Your task to perform on an android device: Clear the cart on target.com. Add "lg ultragear" to the cart on target.com Image 0: 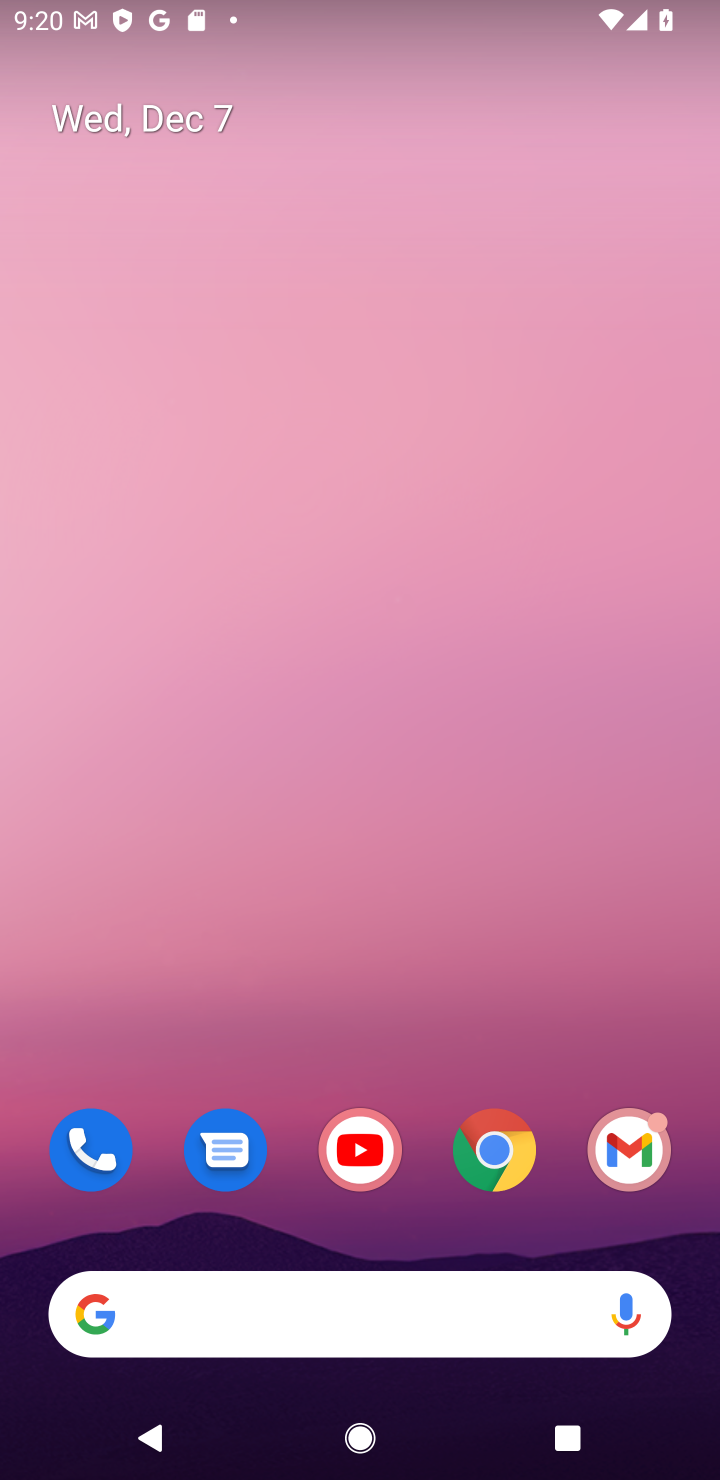
Step 0: click (508, 1148)
Your task to perform on an android device: Clear the cart on target.com. Add "lg ultragear" to the cart on target.com Image 1: 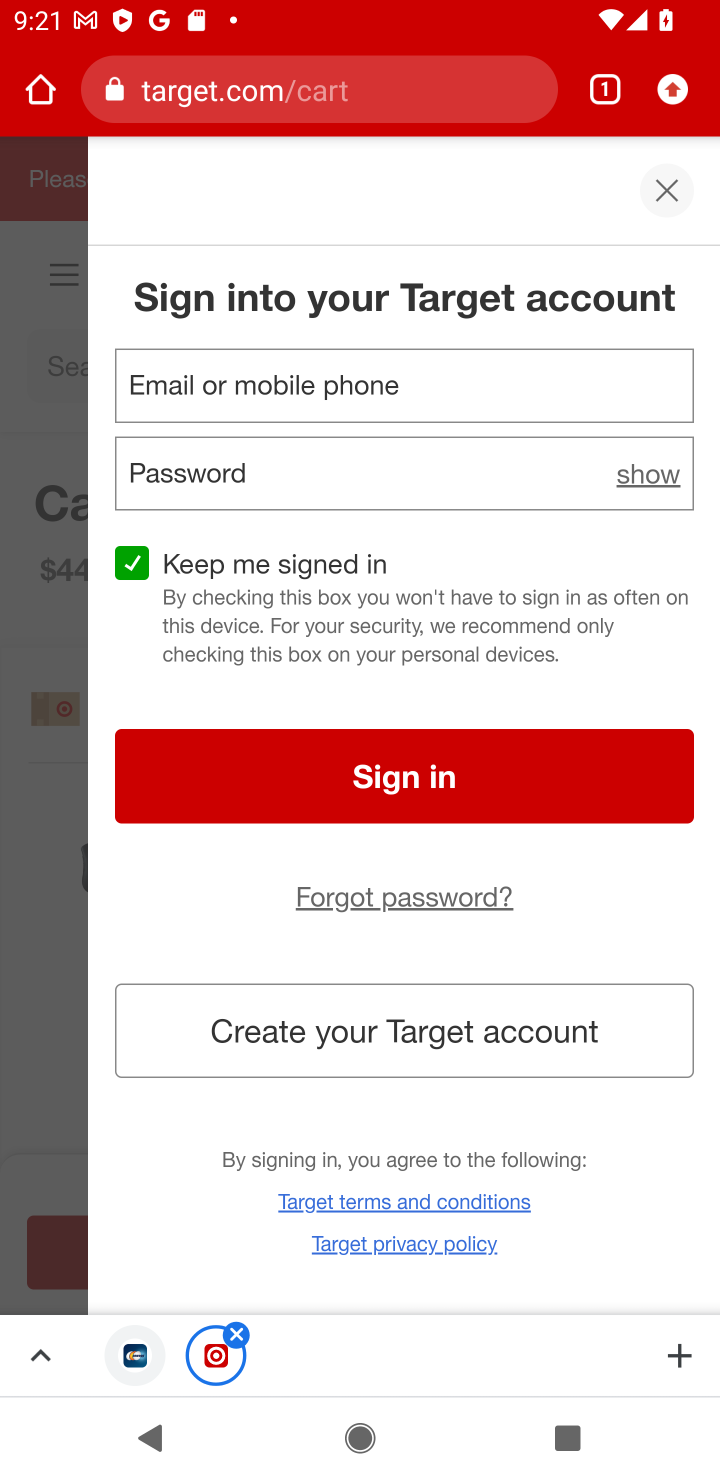
Step 1: click (672, 185)
Your task to perform on an android device: Clear the cart on target.com. Add "lg ultragear" to the cart on target.com Image 2: 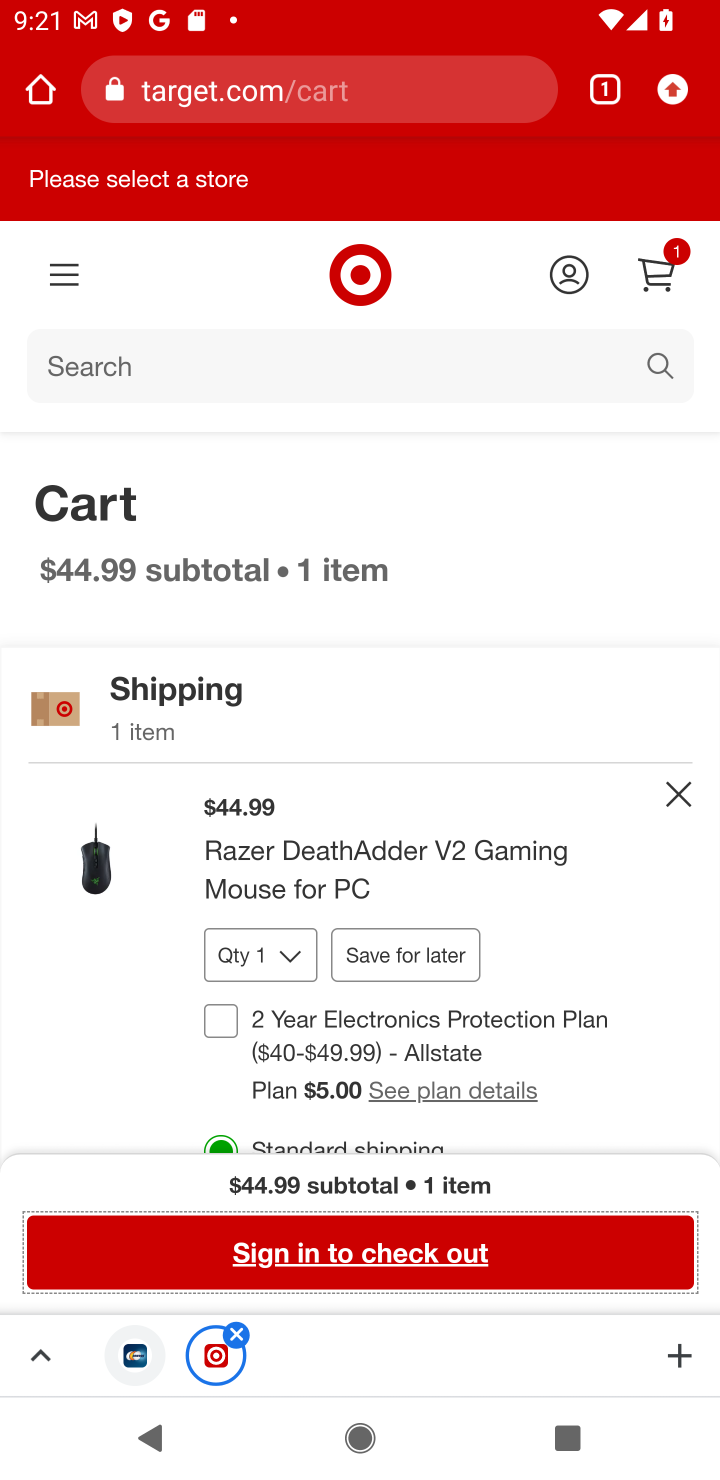
Step 2: click (680, 791)
Your task to perform on an android device: Clear the cart on target.com. Add "lg ultragear" to the cart on target.com Image 3: 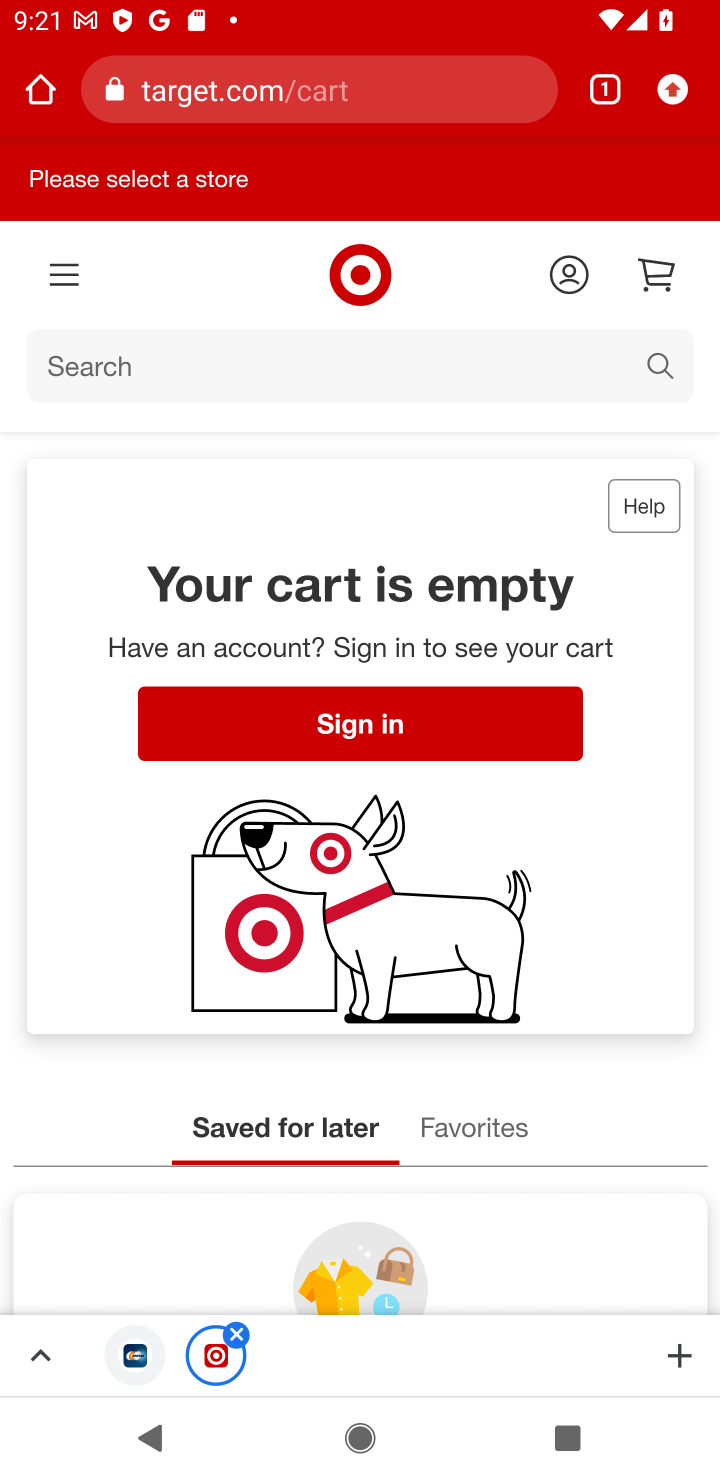
Step 3: click (648, 366)
Your task to perform on an android device: Clear the cart on target.com. Add "lg ultragear" to the cart on target.com Image 4: 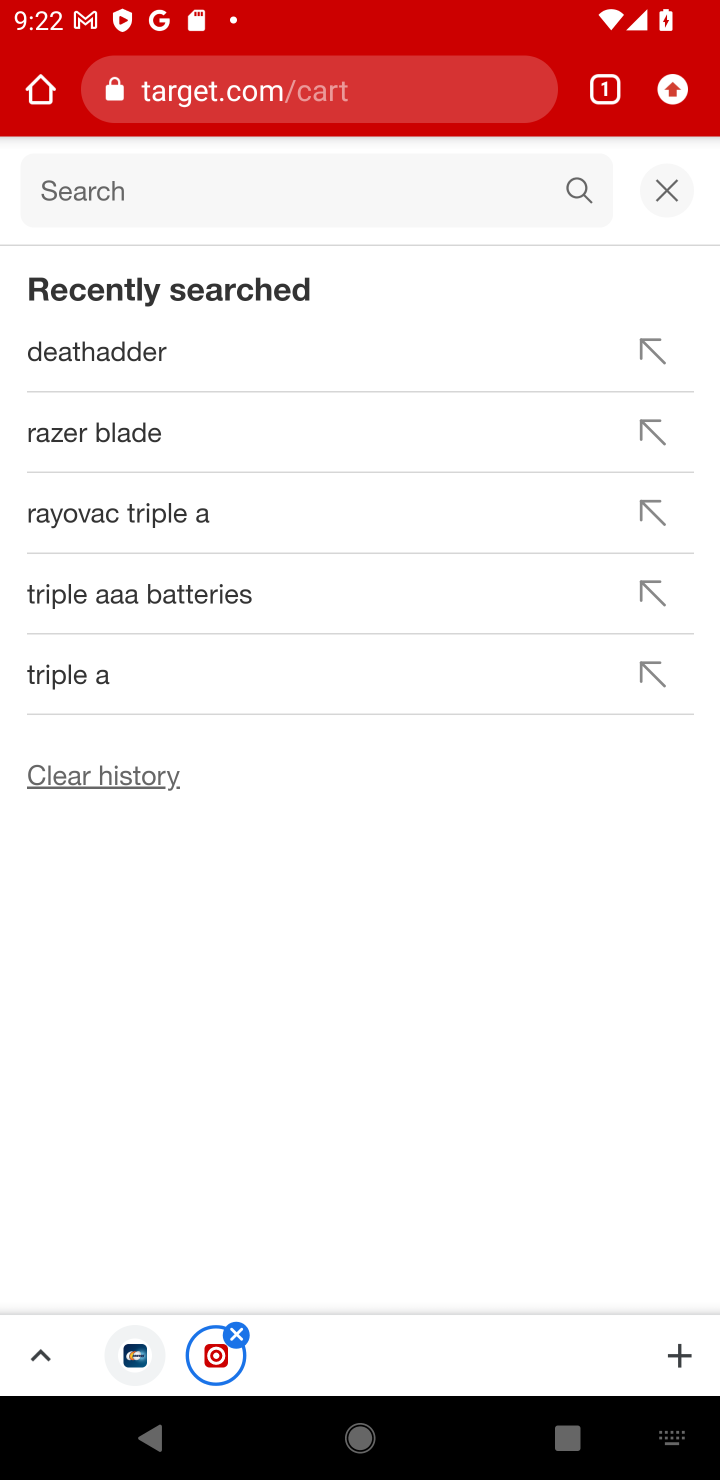
Step 4: press enter
Your task to perform on an android device: Clear the cart on target.com. Add "lg ultragear" to the cart on target.com Image 5: 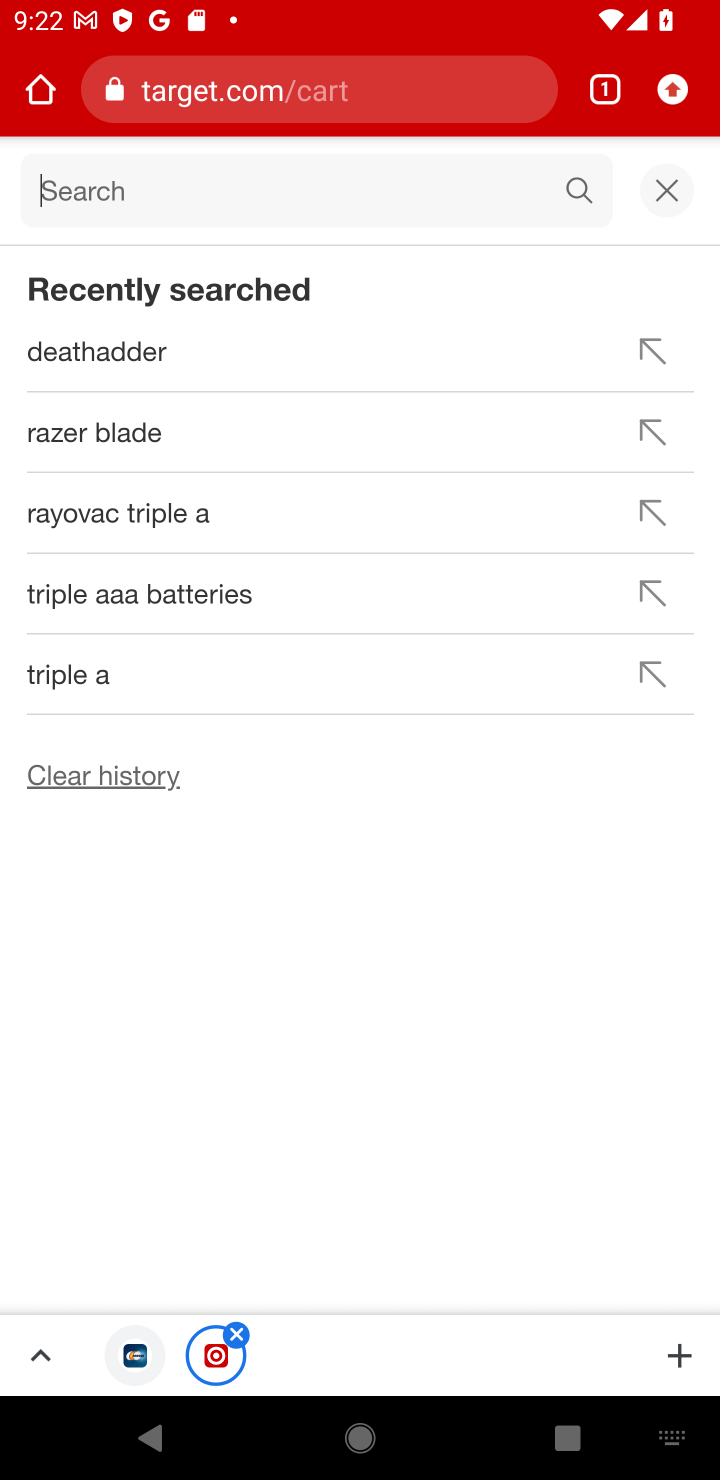
Step 5: type "lg ultragear"
Your task to perform on an android device: Clear the cart on target.com. Add "lg ultragear" to the cart on target.com Image 6: 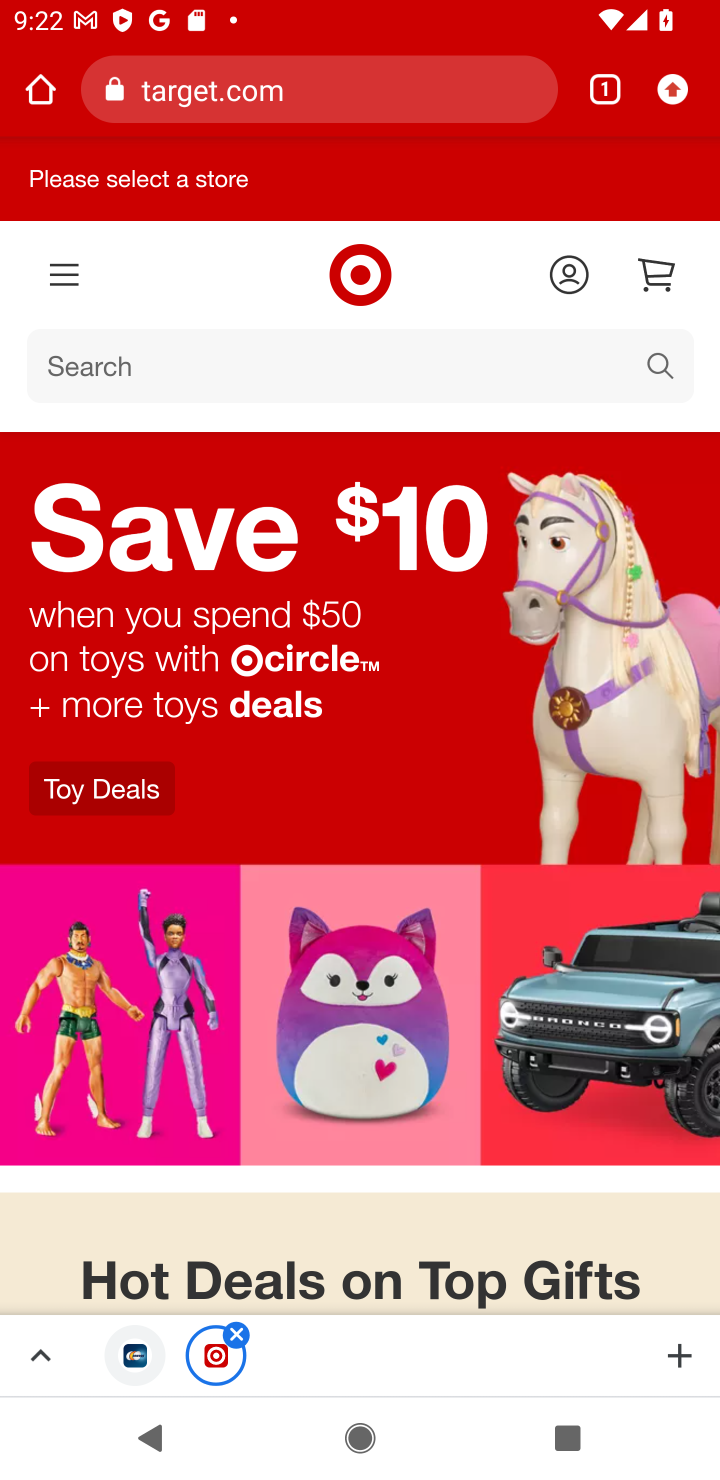
Step 6: click (665, 366)
Your task to perform on an android device: Clear the cart on target.com. Add "lg ultragear" to the cart on target.com Image 7: 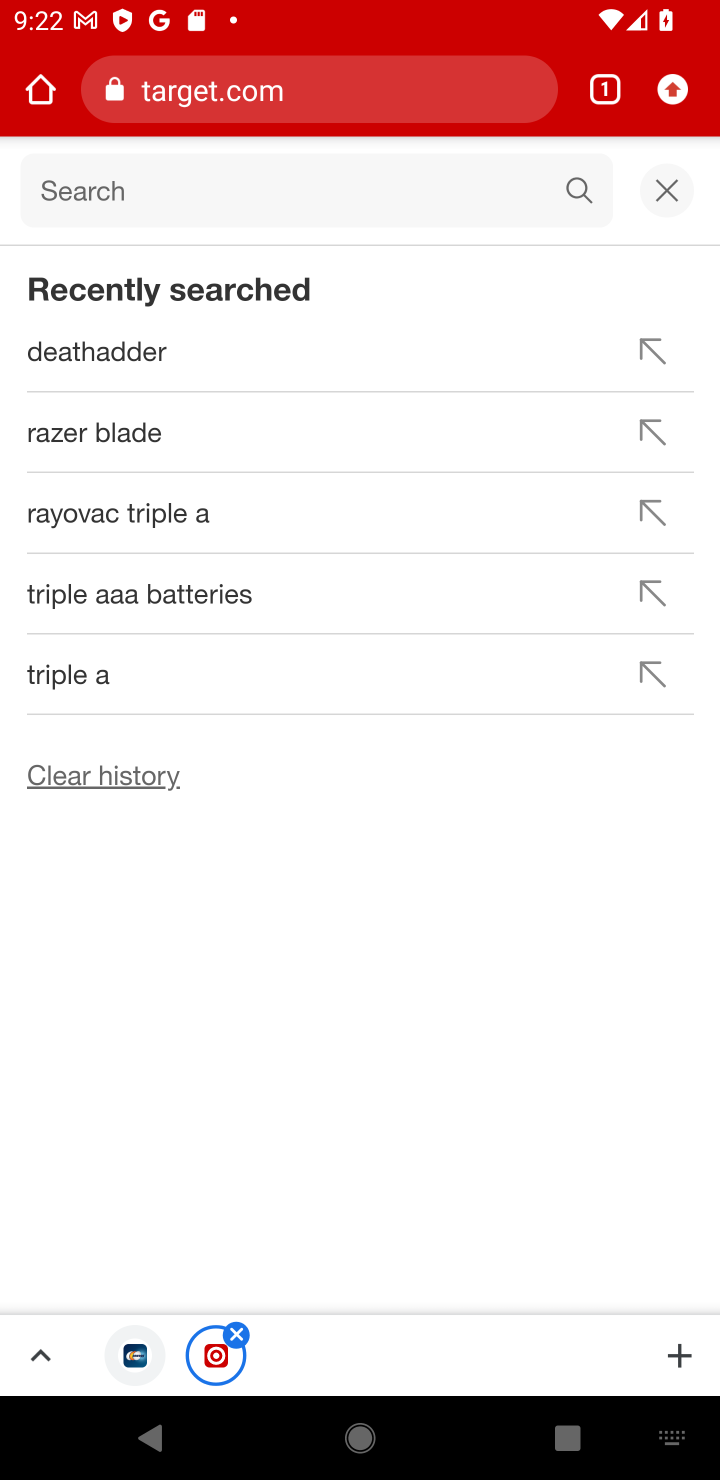
Step 7: type "lg ultragear"
Your task to perform on an android device: Clear the cart on target.com. Add "lg ultragear" to the cart on target.com Image 8: 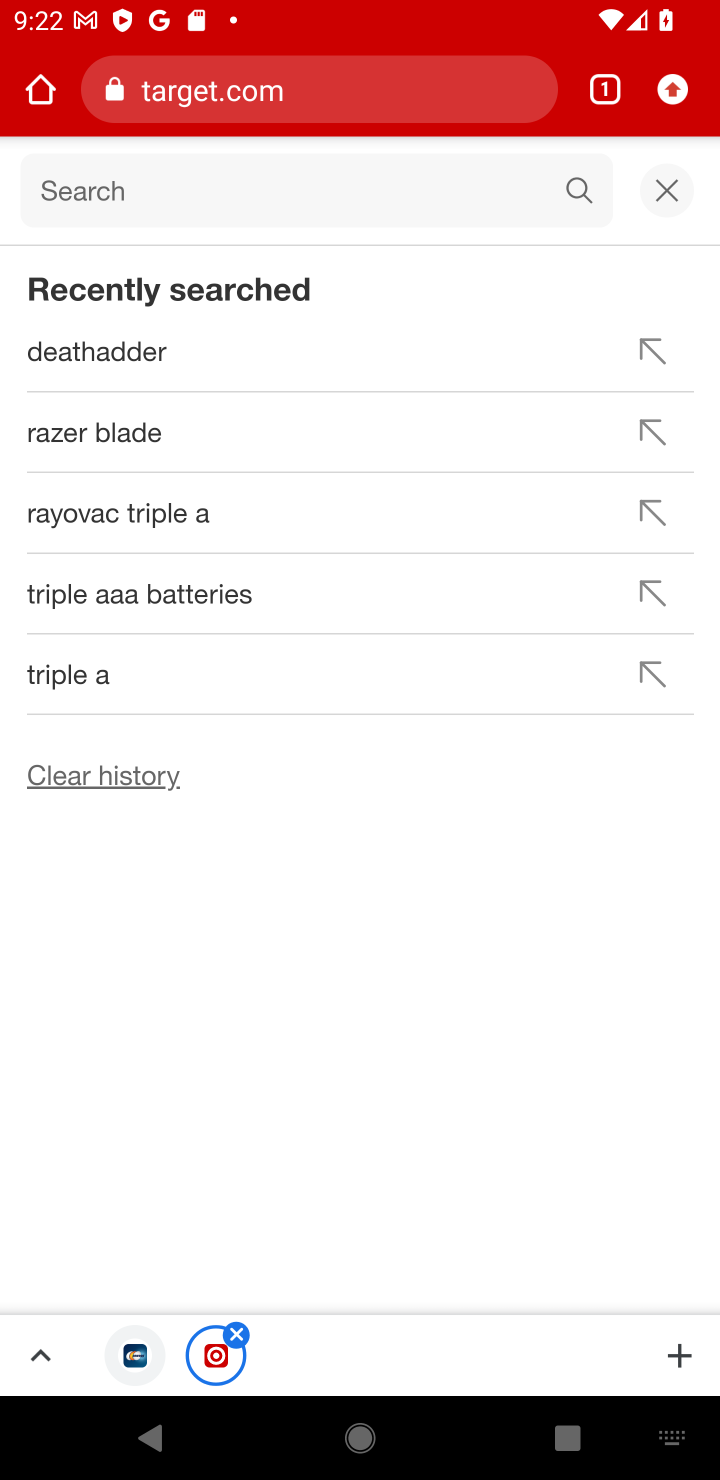
Step 8: press enter
Your task to perform on an android device: Clear the cart on target.com. Add "lg ultragear" to the cart on target.com Image 9: 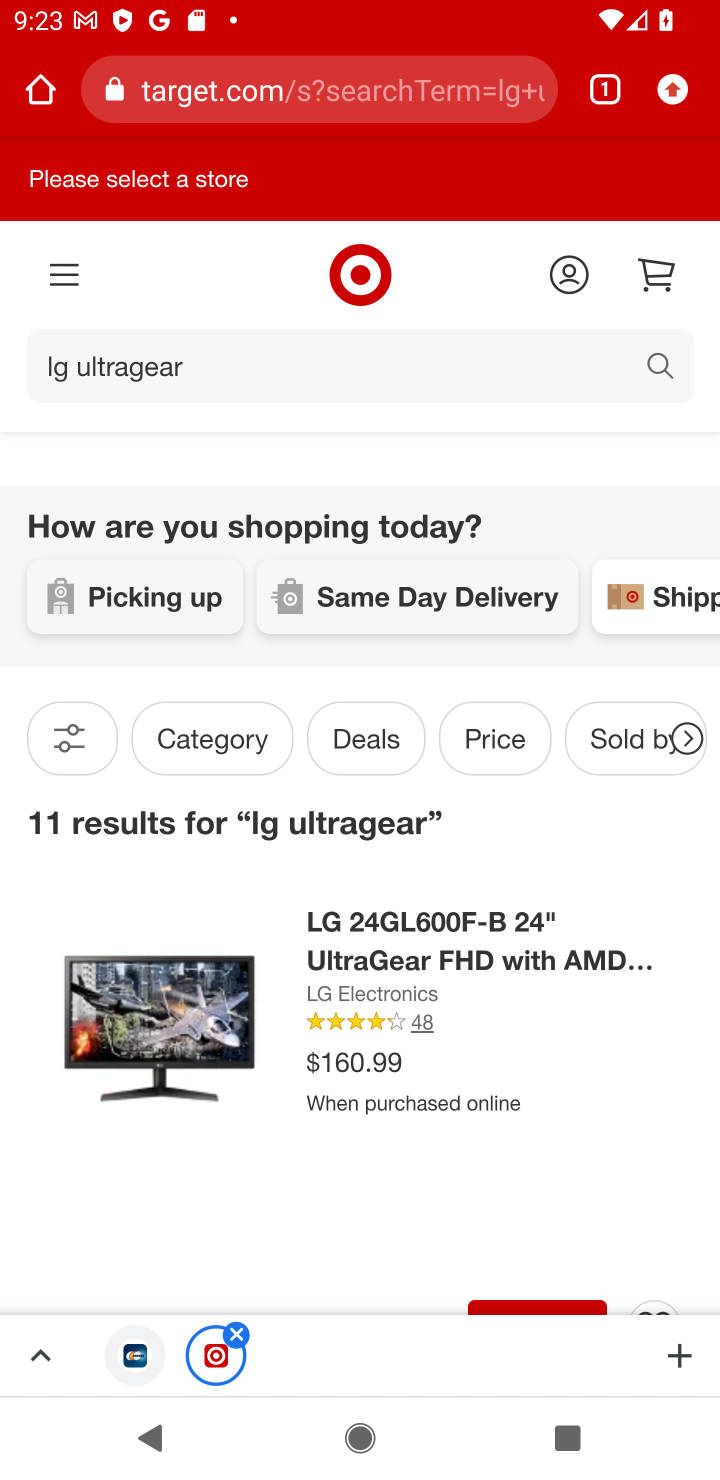
Step 9: drag from (567, 1102) to (567, 338)
Your task to perform on an android device: Clear the cart on target.com. Add "lg ultragear" to the cart on target.com Image 10: 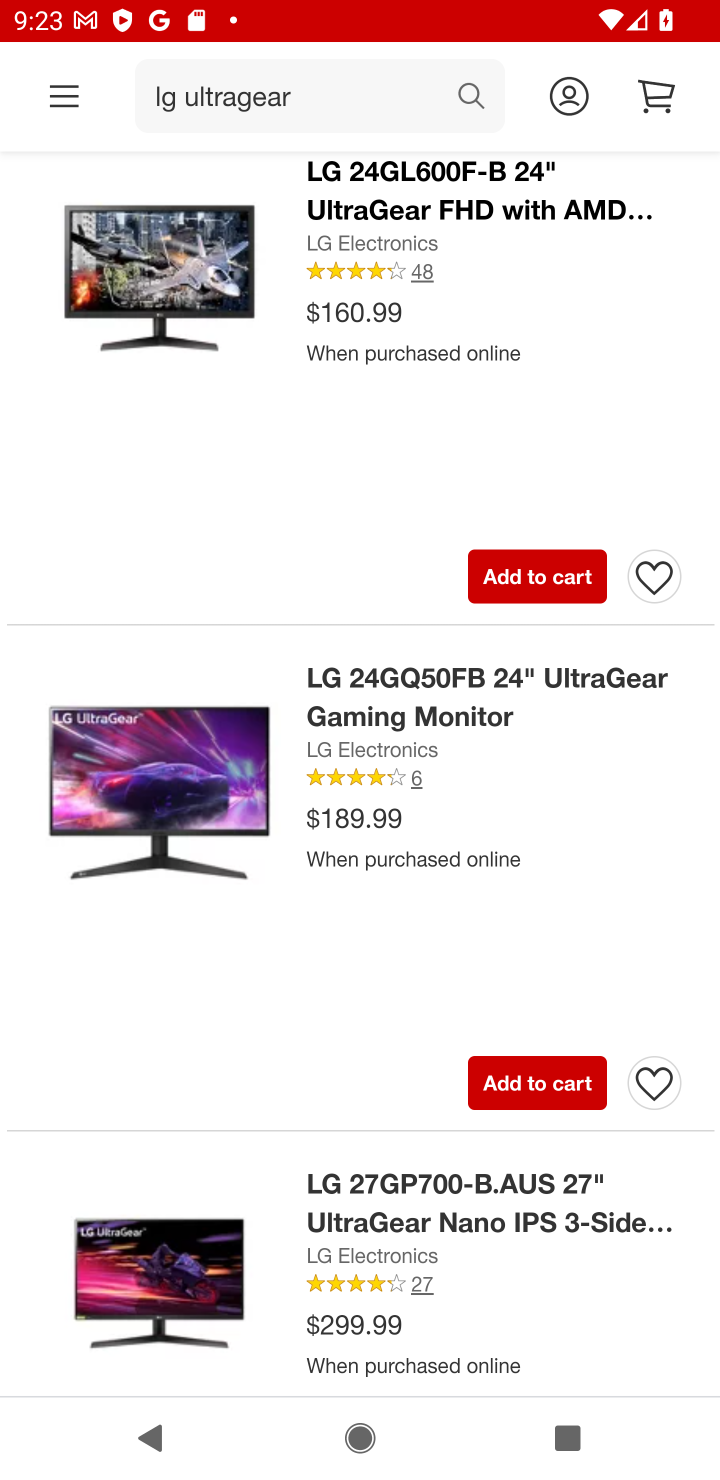
Step 10: click (160, 258)
Your task to perform on an android device: Clear the cart on target.com. Add "lg ultragear" to the cart on target.com Image 11: 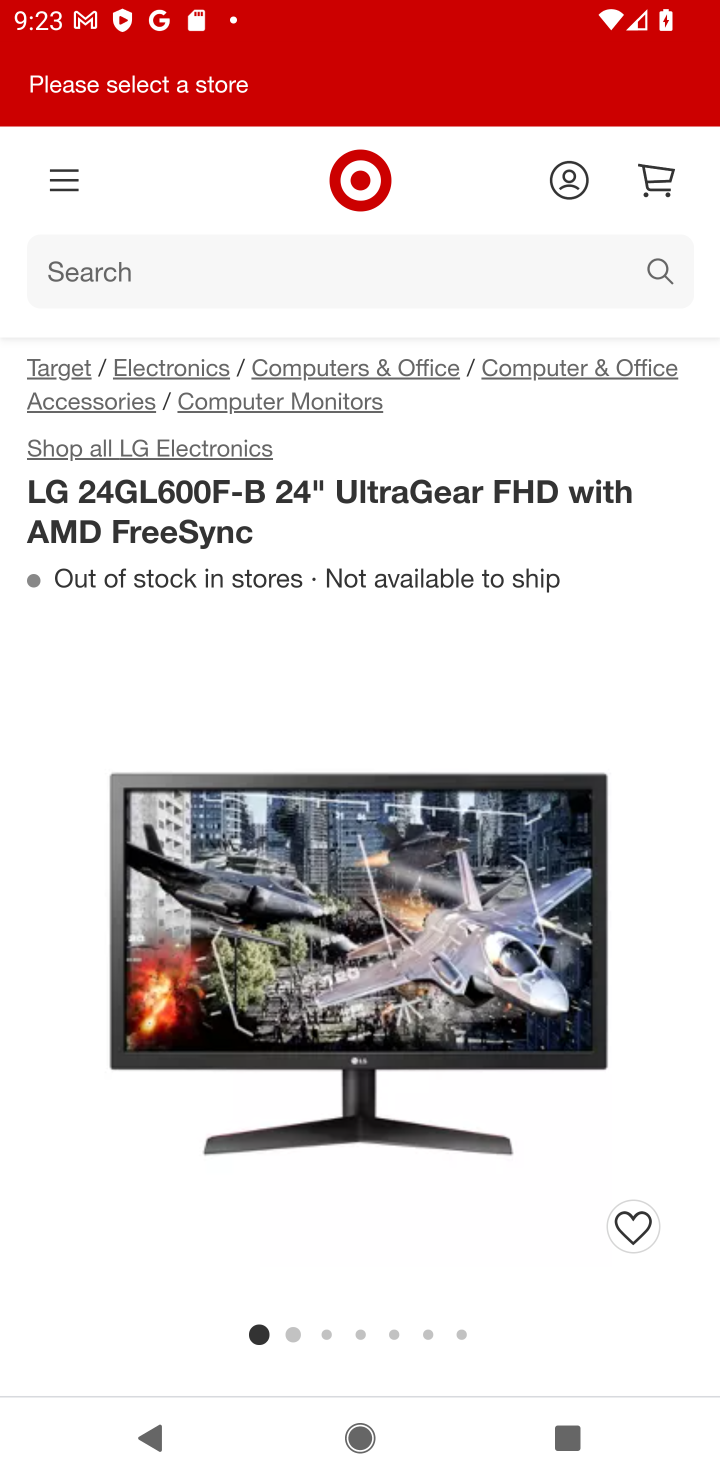
Step 11: drag from (584, 1126) to (474, 603)
Your task to perform on an android device: Clear the cart on target.com. Add "lg ultragear" to the cart on target.com Image 12: 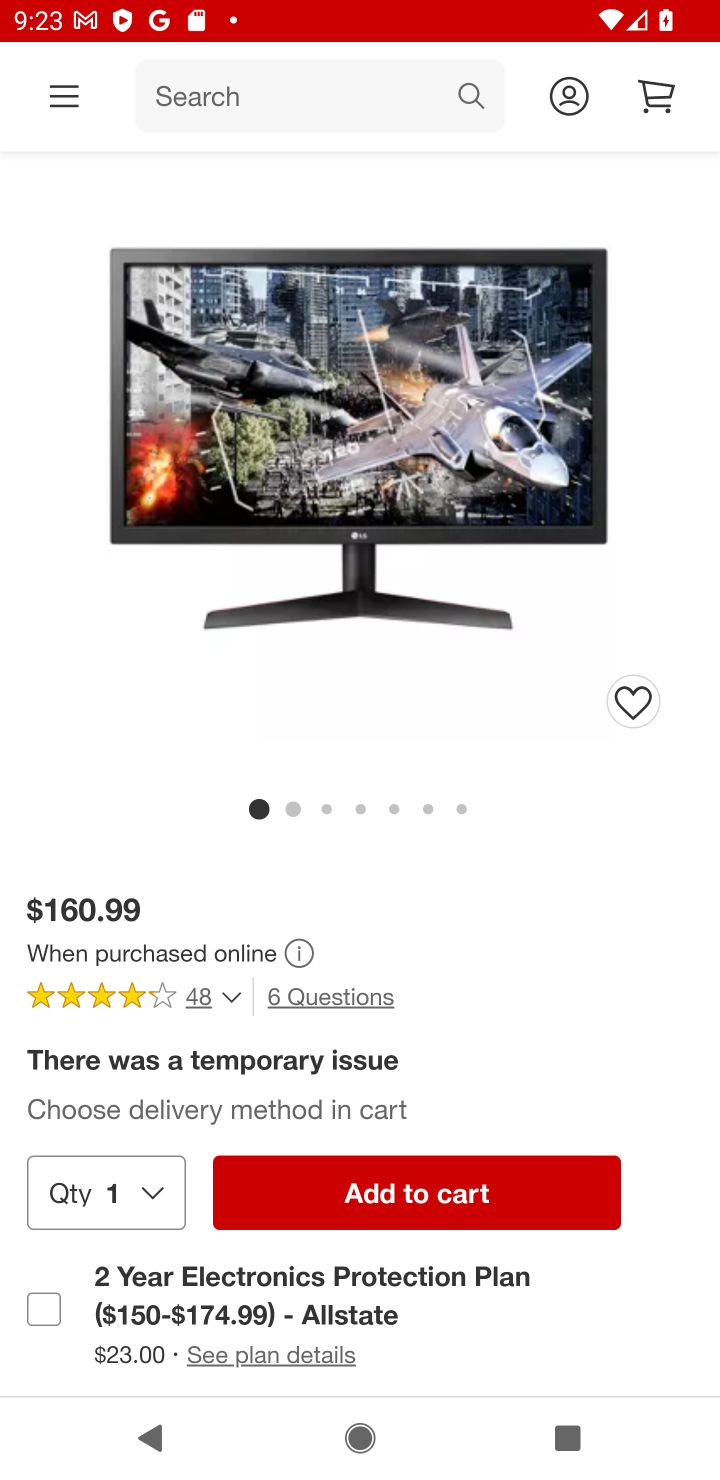
Step 12: click (433, 1200)
Your task to perform on an android device: Clear the cart on target.com. Add "lg ultragear" to the cart on target.com Image 13: 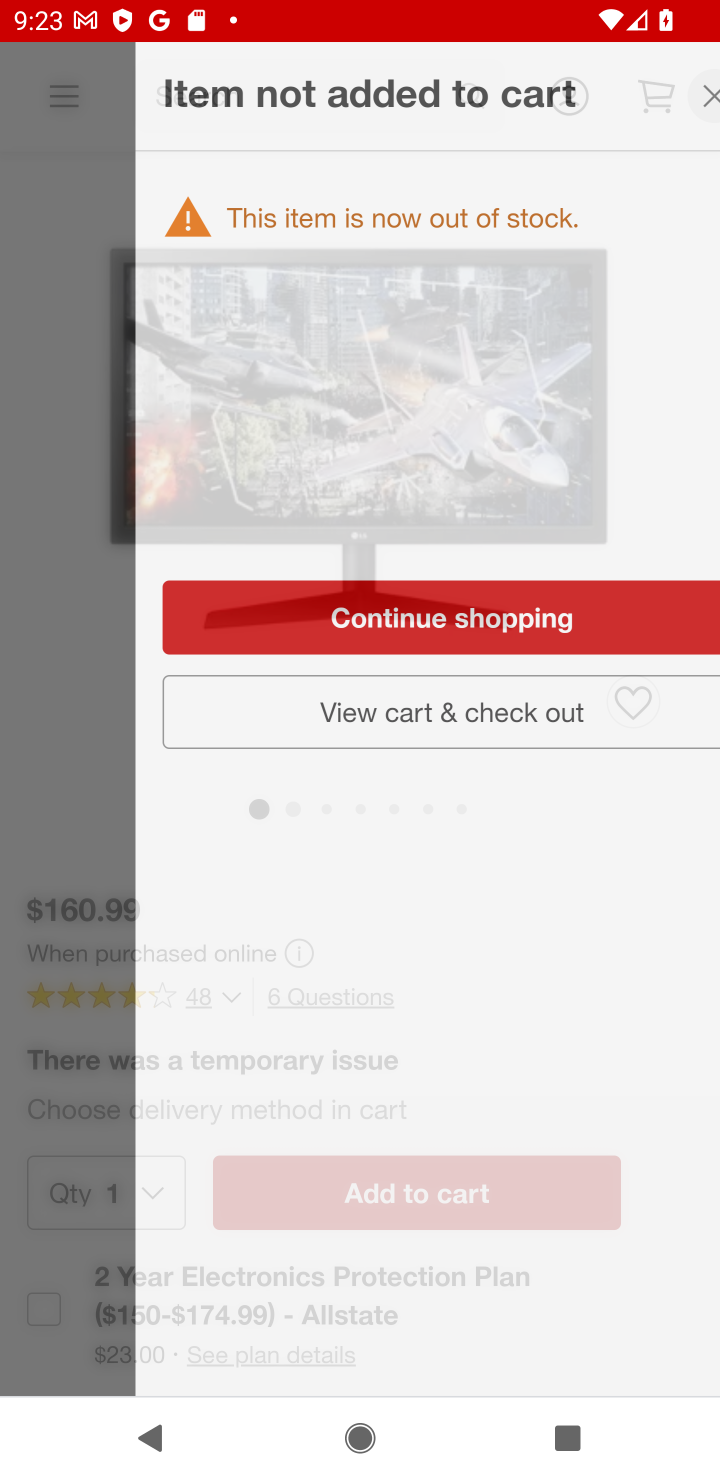
Step 13: click (710, 103)
Your task to perform on an android device: Clear the cart on target.com. Add "lg ultragear" to the cart on target.com Image 14: 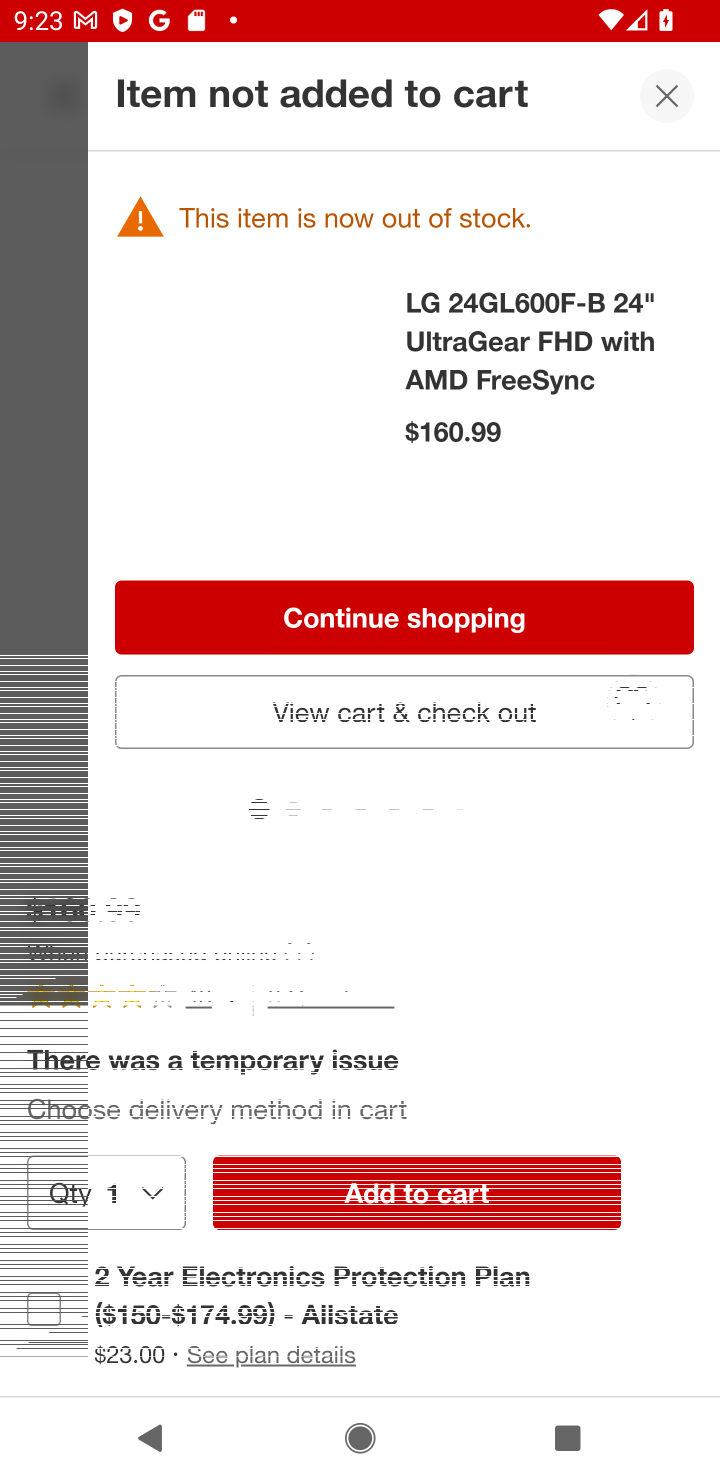
Step 14: click (670, 89)
Your task to perform on an android device: Clear the cart on target.com. Add "lg ultragear" to the cart on target.com Image 15: 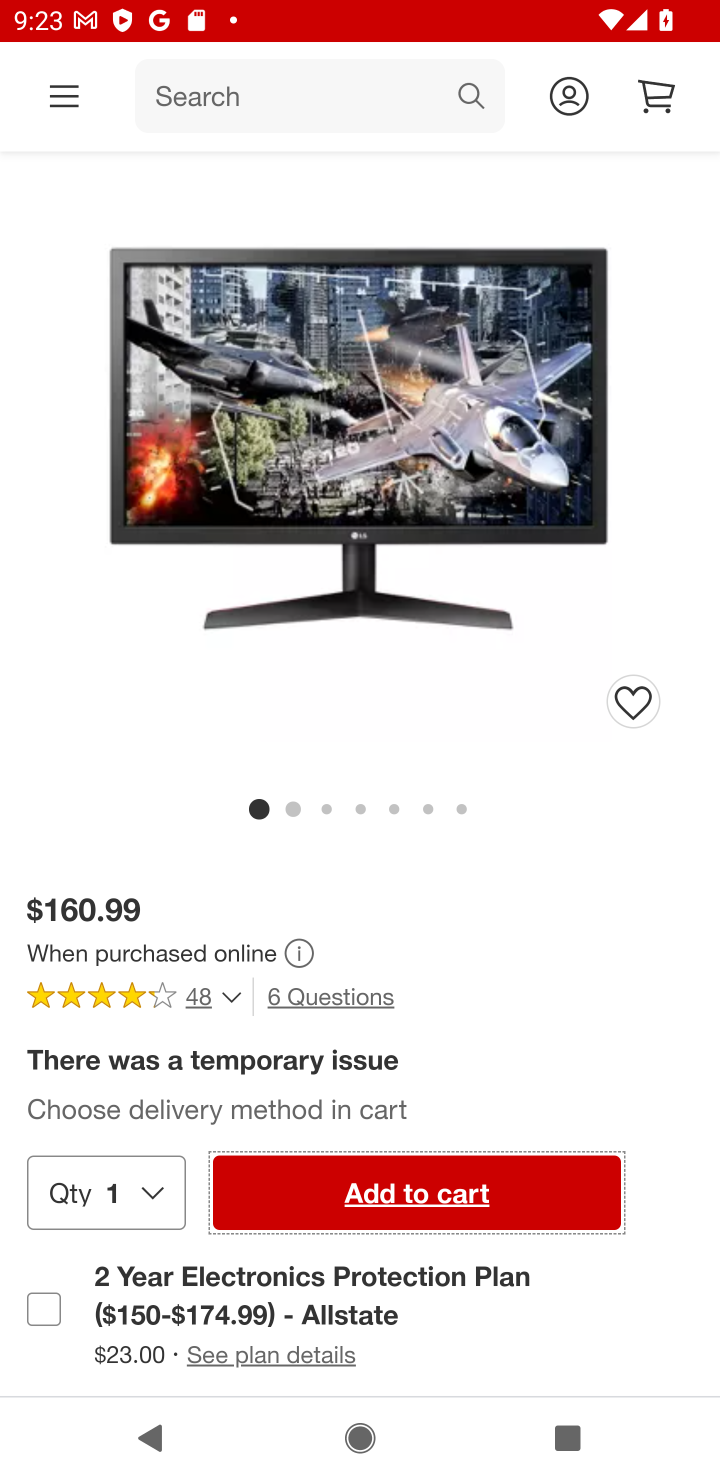
Step 15: click (668, 102)
Your task to perform on an android device: Clear the cart on target.com. Add "lg ultragear" to the cart on target.com Image 16: 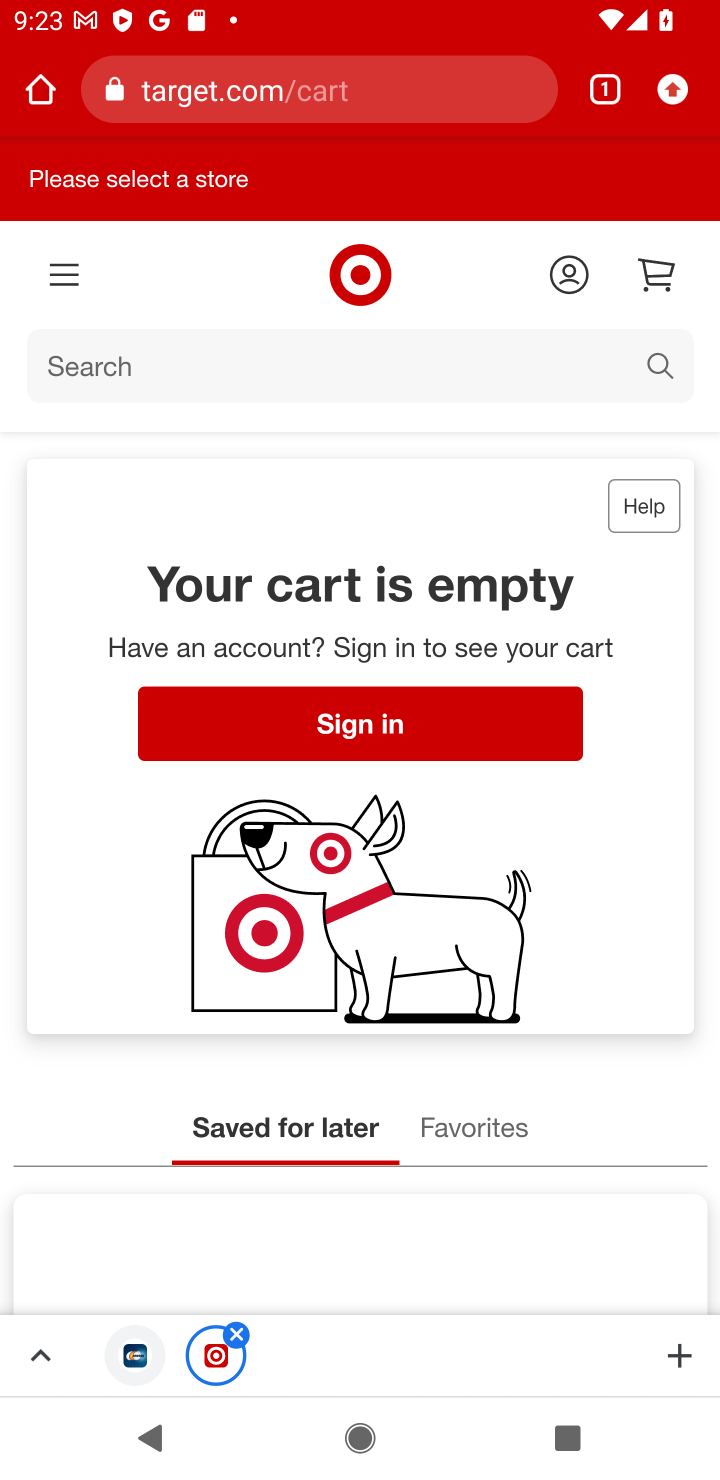
Step 16: click (582, 362)
Your task to perform on an android device: Clear the cart on target.com. Add "lg ultragear" to the cart on target.com Image 17: 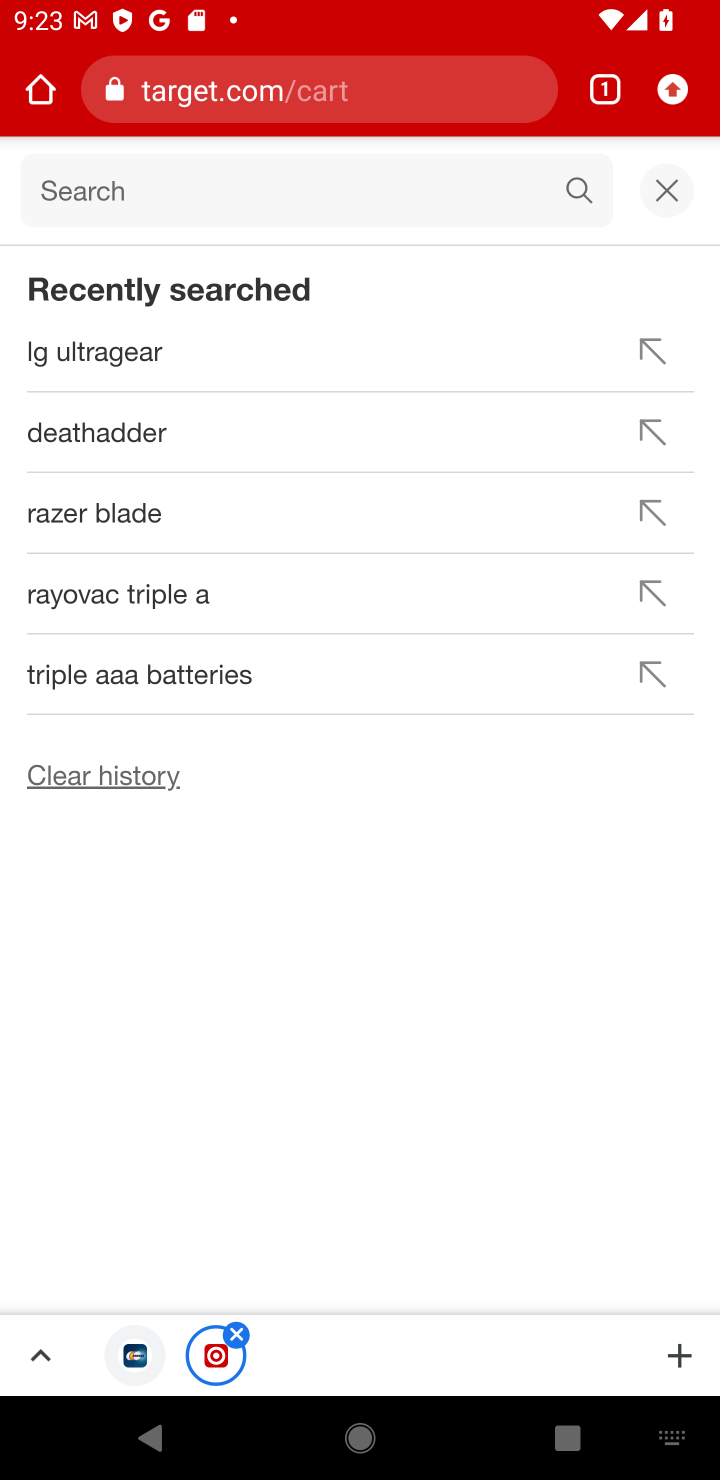
Step 17: click (129, 344)
Your task to perform on an android device: Clear the cart on target.com. Add "lg ultragear" to the cart on target.com Image 18: 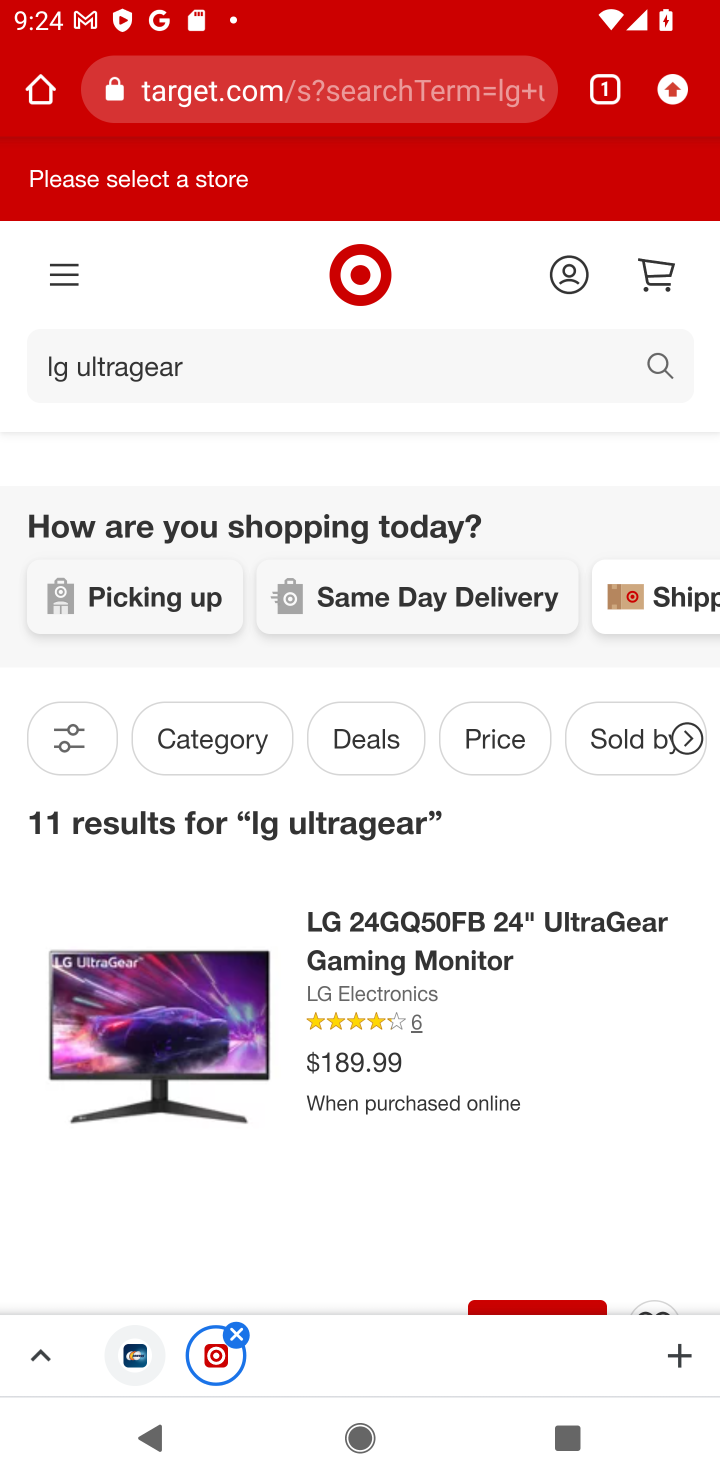
Step 18: drag from (225, 1022) to (266, 353)
Your task to perform on an android device: Clear the cart on target.com. Add "lg ultragear" to the cart on target.com Image 19: 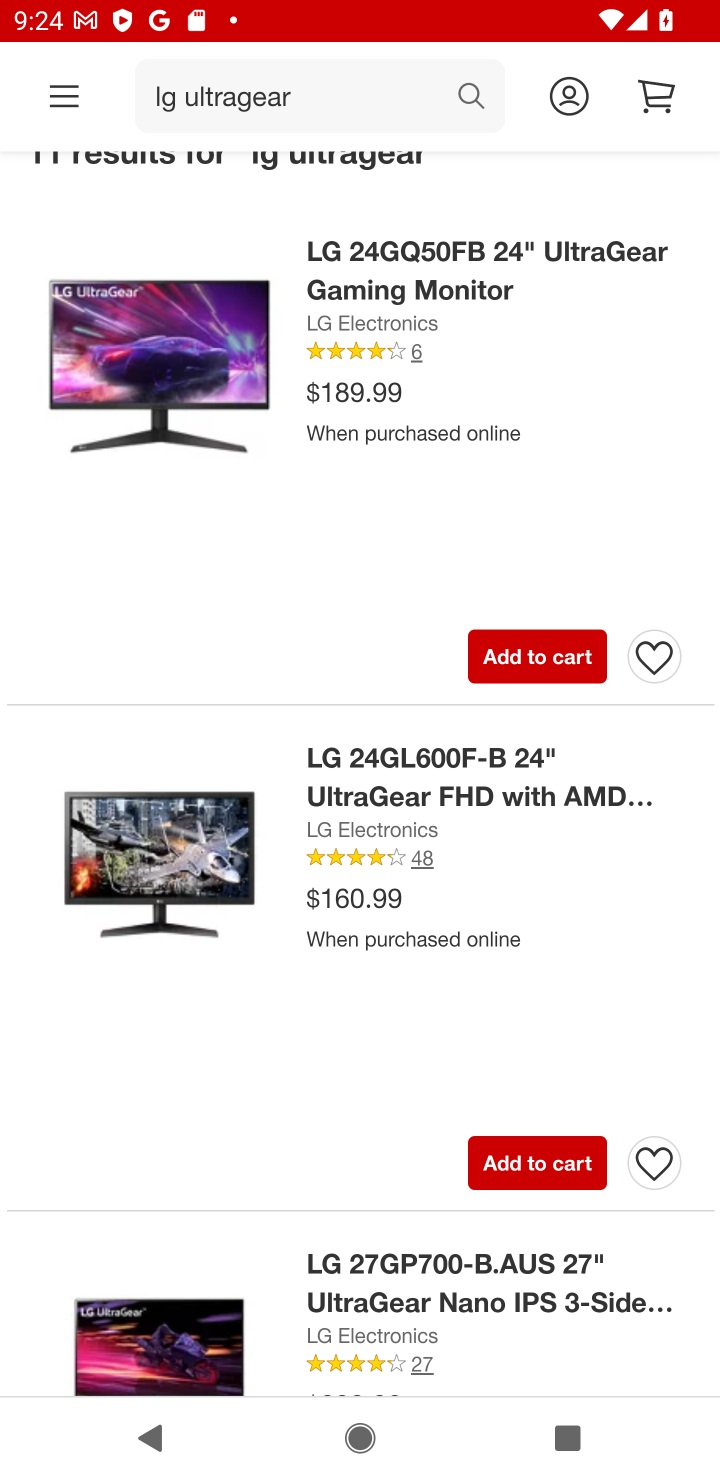
Step 19: click (180, 841)
Your task to perform on an android device: Clear the cart on target.com. Add "lg ultragear" to the cart on target.com Image 20: 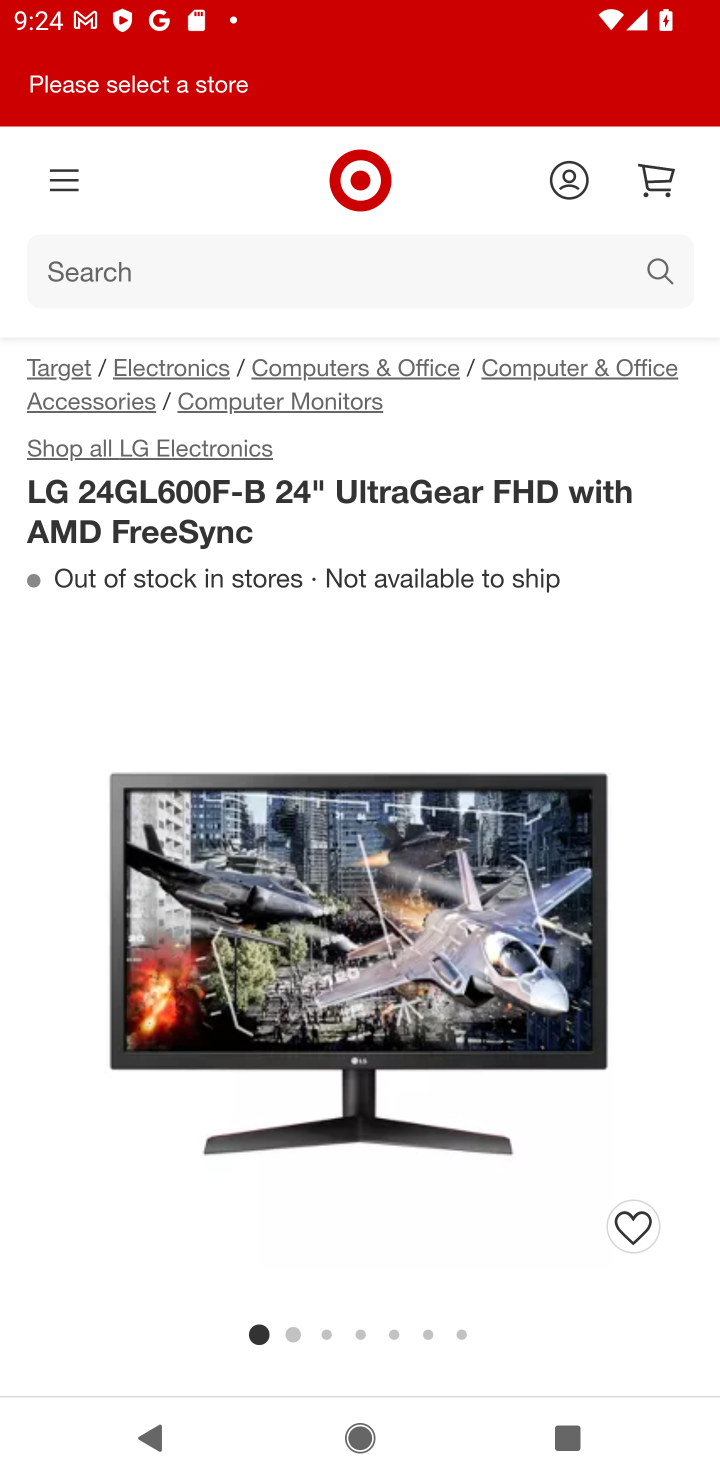
Step 20: drag from (531, 1012) to (557, 257)
Your task to perform on an android device: Clear the cart on target.com. Add "lg ultragear" to the cart on target.com Image 21: 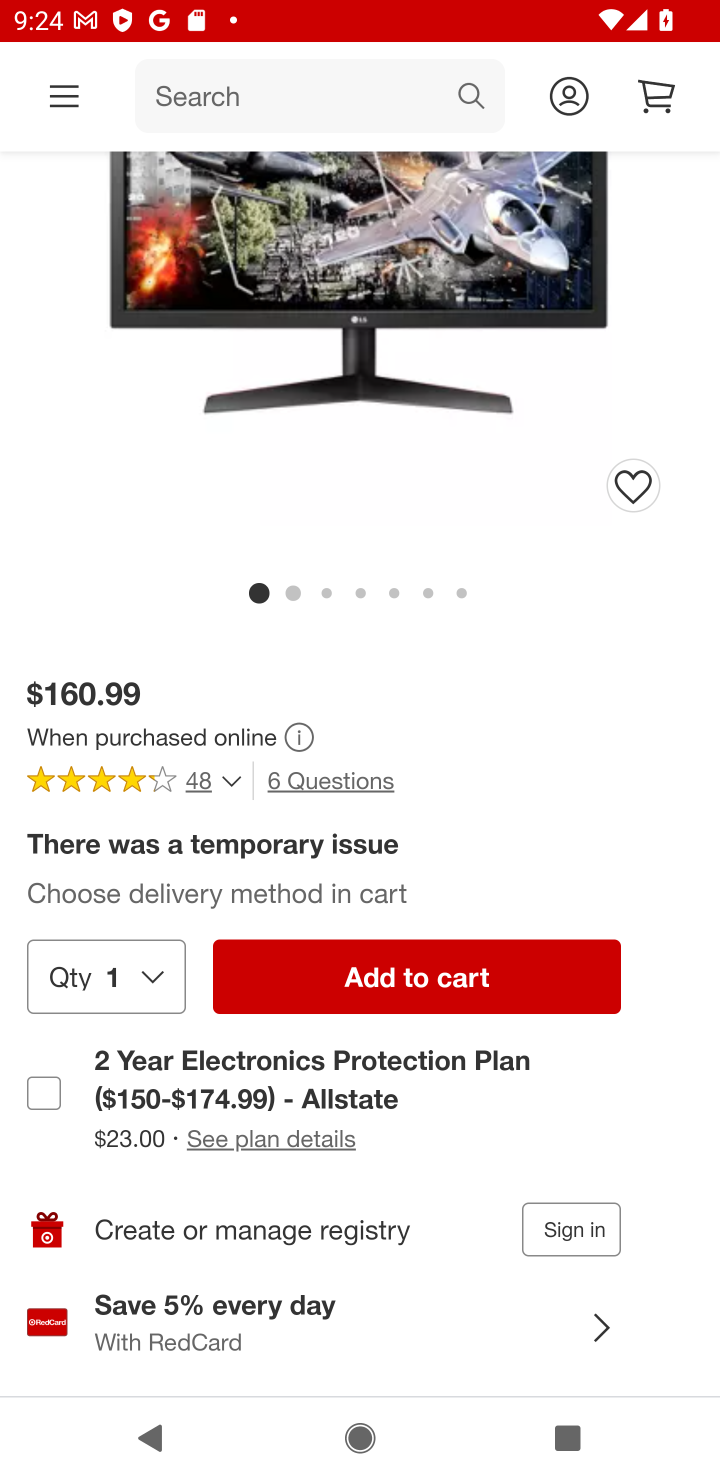
Step 21: click (516, 978)
Your task to perform on an android device: Clear the cart on target.com. Add "lg ultragear" to the cart on target.com Image 22: 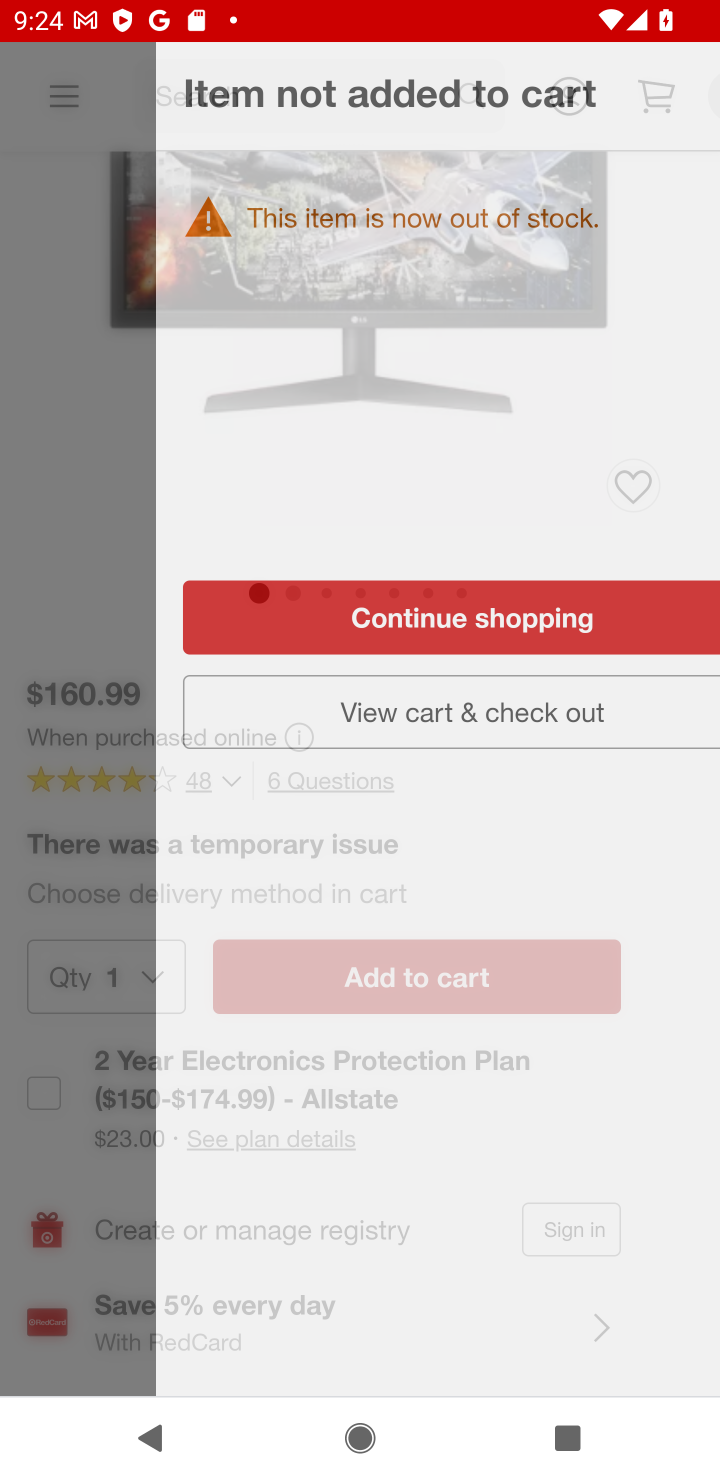
Step 22: press back button
Your task to perform on an android device: Clear the cart on target.com. Add "lg ultragear" to the cart on target.com Image 23: 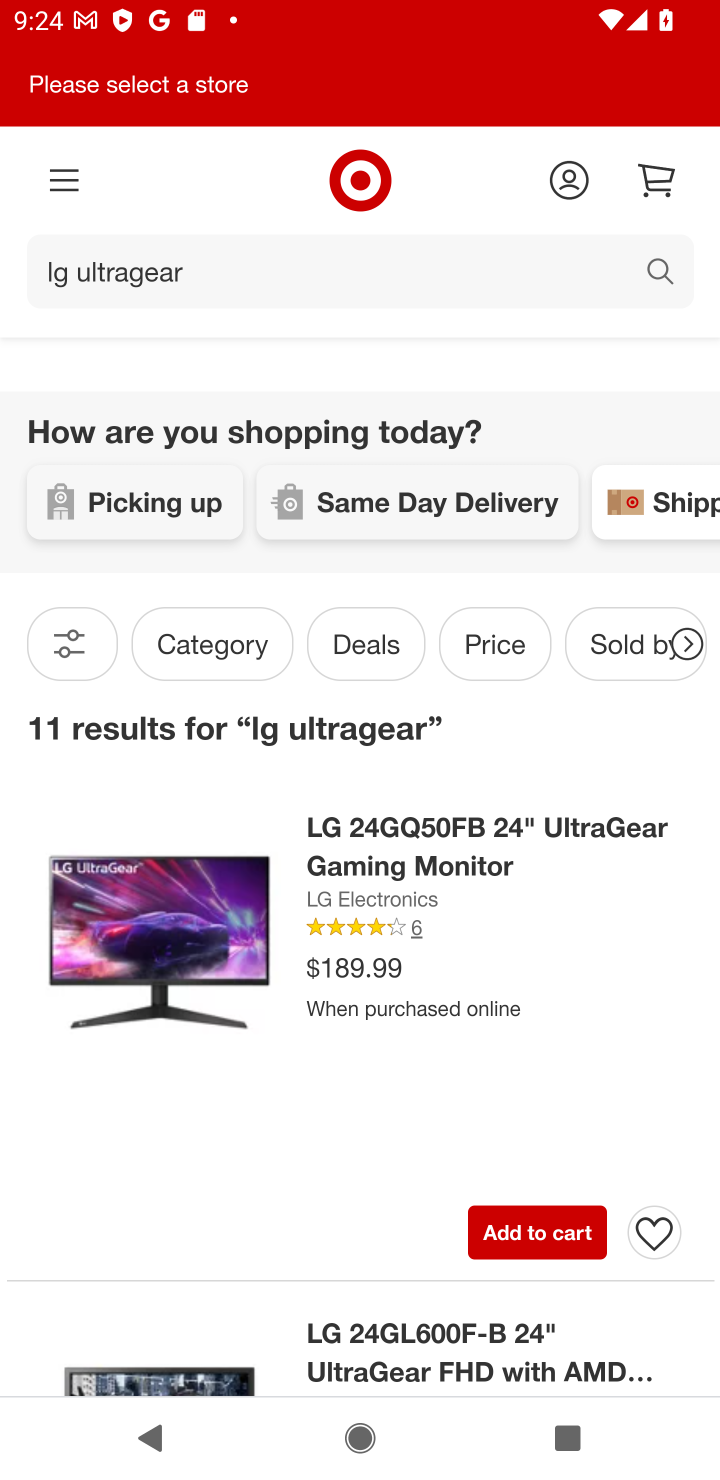
Step 23: drag from (507, 1023) to (479, 250)
Your task to perform on an android device: Clear the cart on target.com. Add "lg ultragear" to the cart on target.com Image 24: 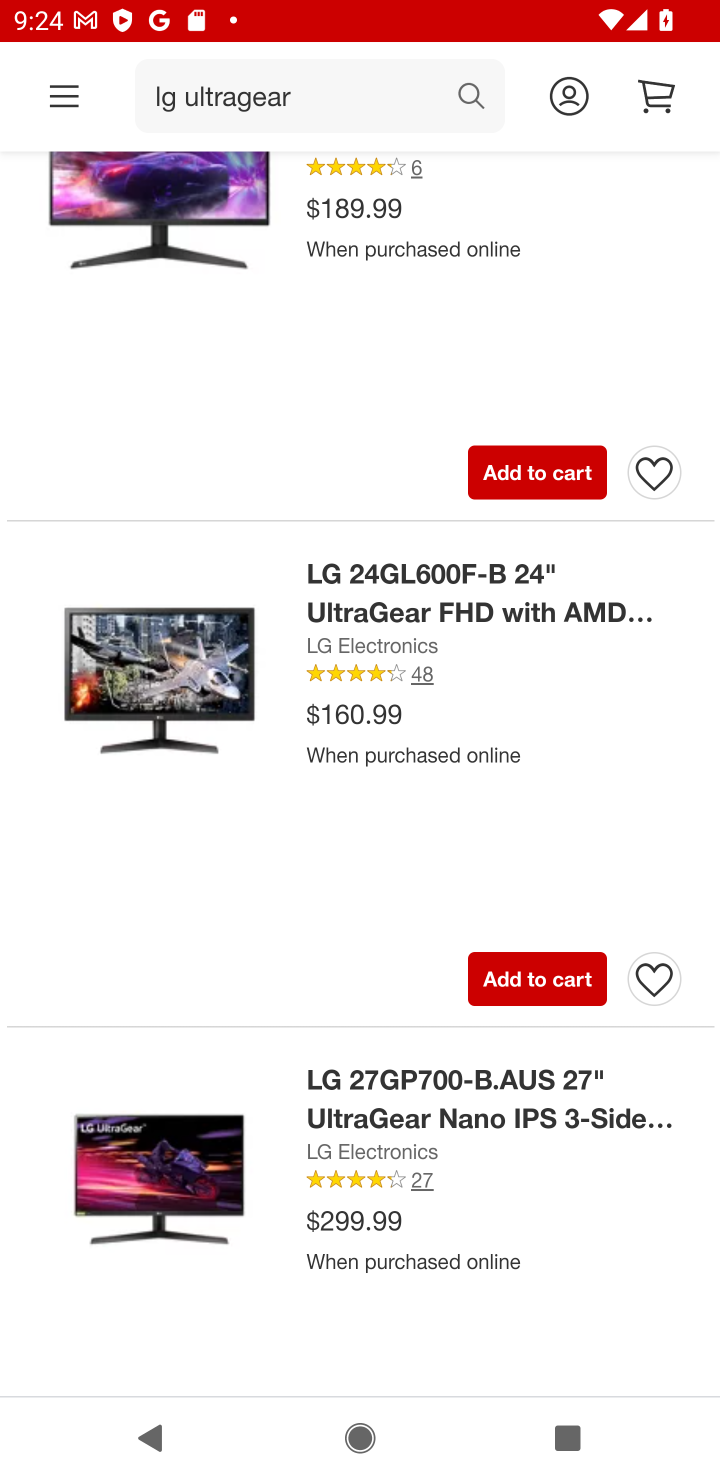
Step 24: click (185, 1140)
Your task to perform on an android device: Clear the cart on target.com. Add "lg ultragear" to the cart on target.com Image 25: 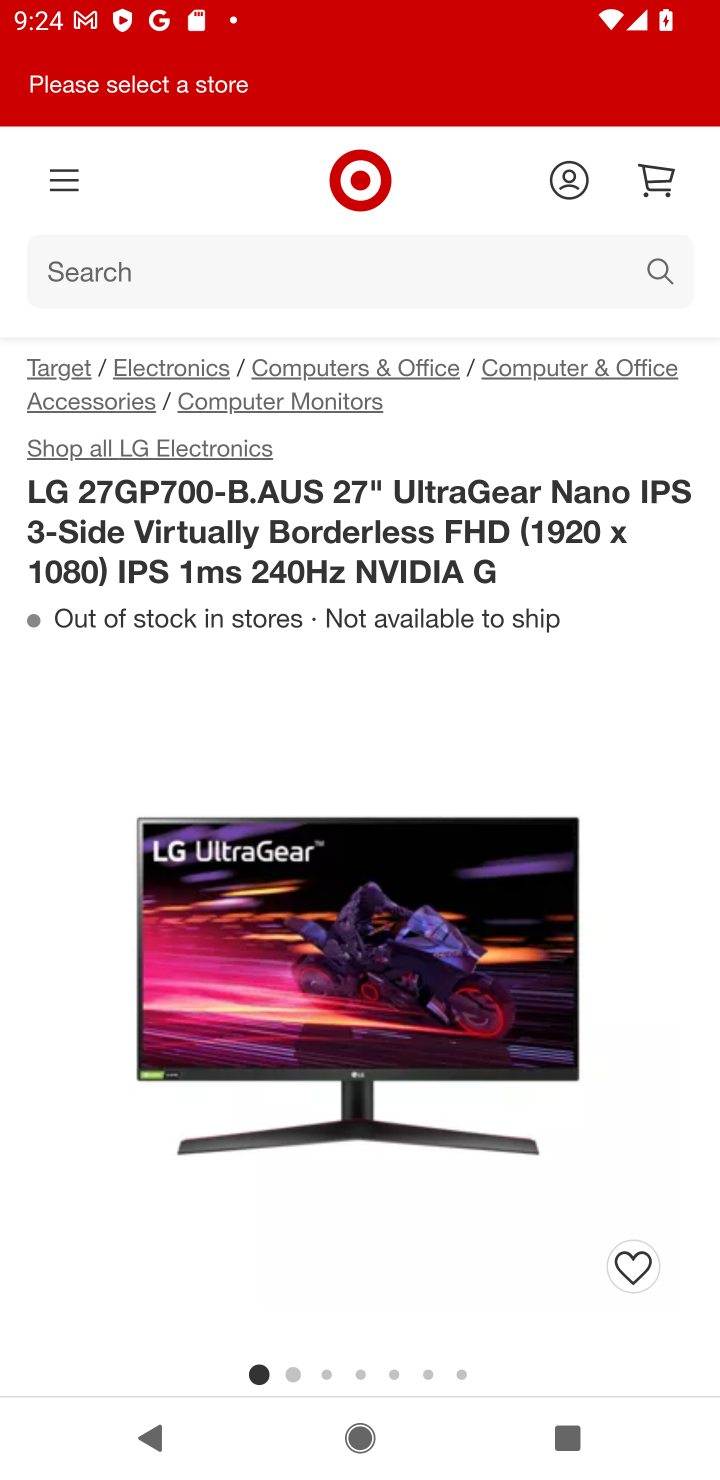
Step 25: drag from (426, 1125) to (544, 305)
Your task to perform on an android device: Clear the cart on target.com. Add "lg ultragear" to the cart on target.com Image 26: 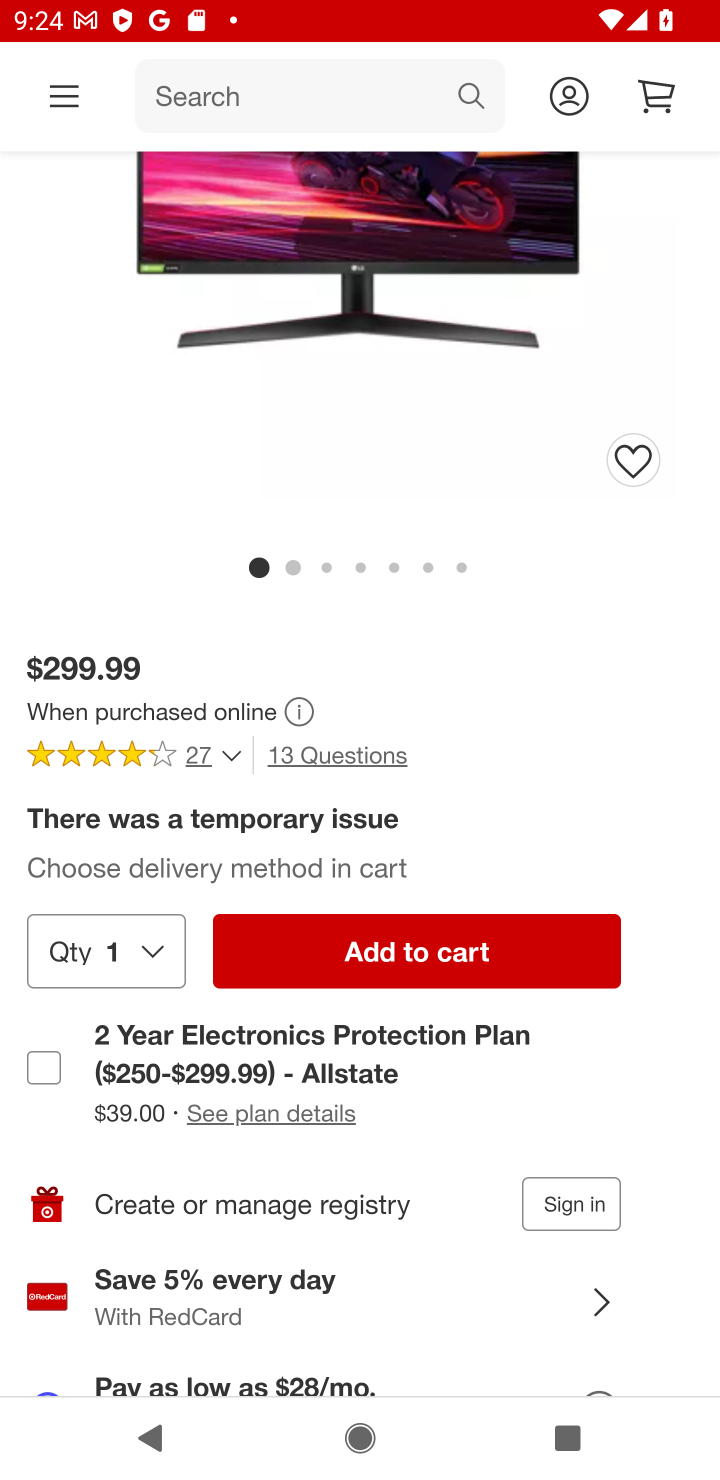
Step 26: click (473, 959)
Your task to perform on an android device: Clear the cart on target.com. Add "lg ultragear" to the cart on target.com Image 27: 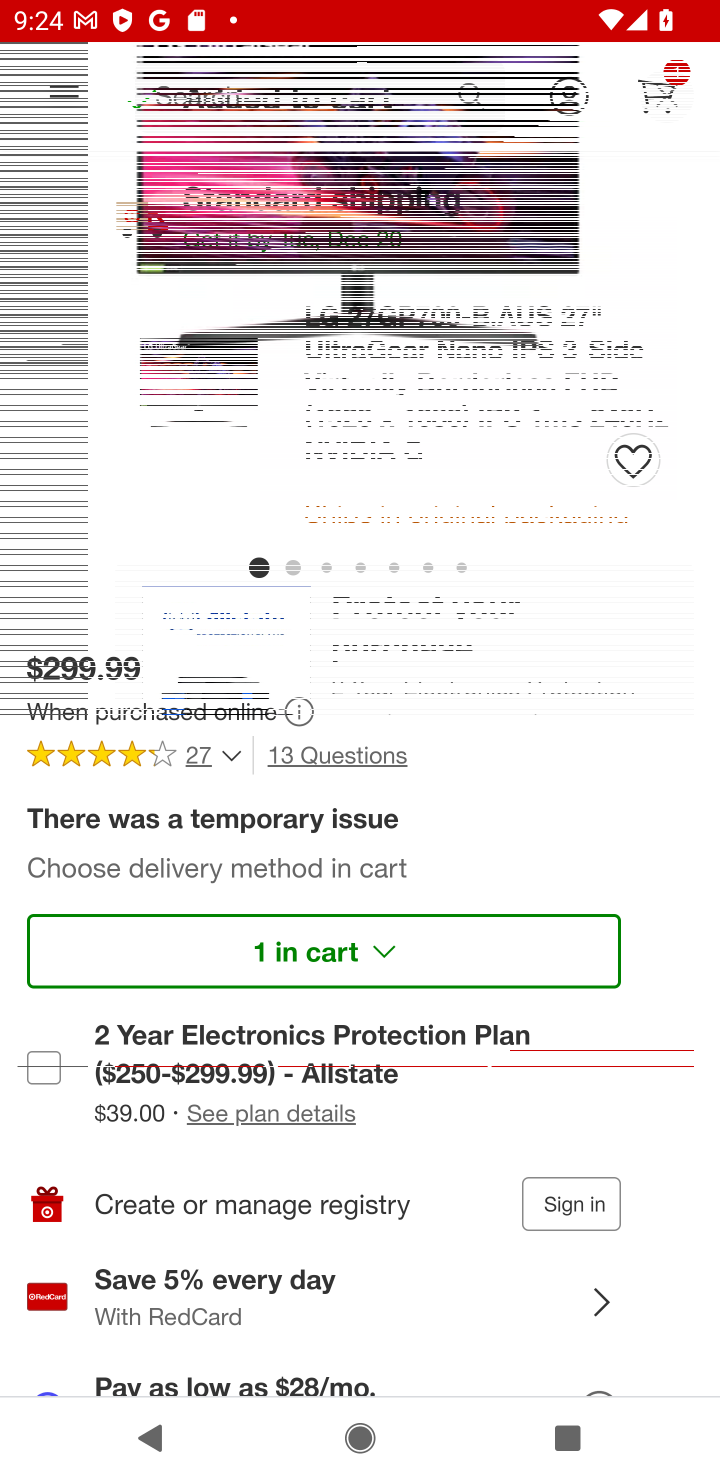
Step 27: task complete